Your task to perform on an android device: Go to accessibility settings Image 0: 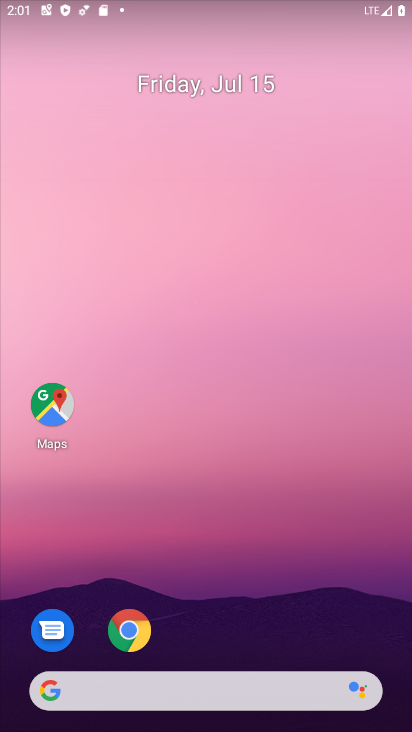
Step 0: press home button
Your task to perform on an android device: Go to accessibility settings Image 1: 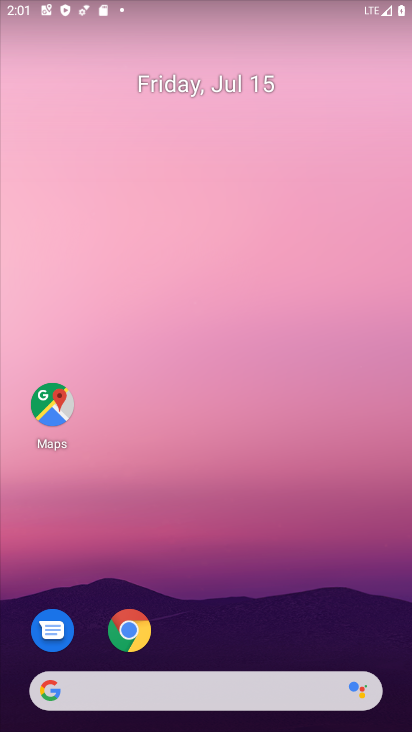
Step 1: drag from (269, 635) to (339, 45)
Your task to perform on an android device: Go to accessibility settings Image 2: 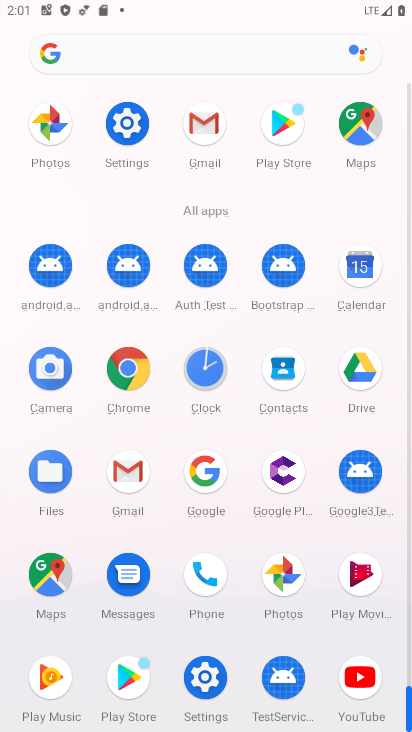
Step 2: click (127, 130)
Your task to perform on an android device: Go to accessibility settings Image 3: 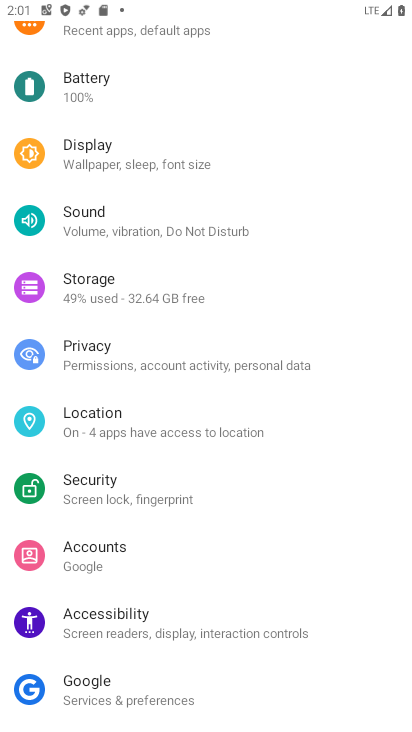
Step 3: click (147, 620)
Your task to perform on an android device: Go to accessibility settings Image 4: 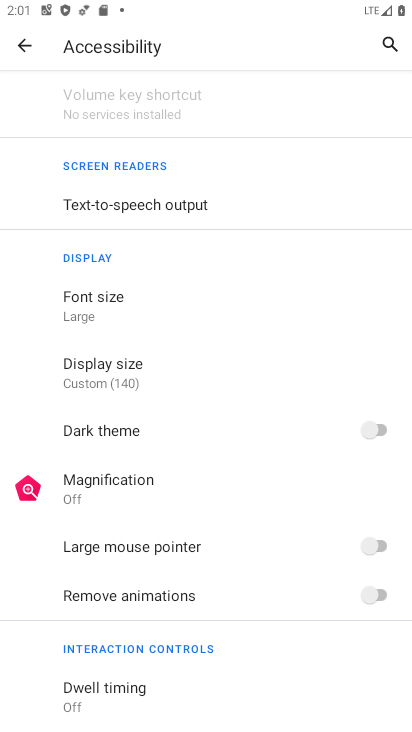
Step 4: task complete